Your task to perform on an android device: toggle wifi Image 0: 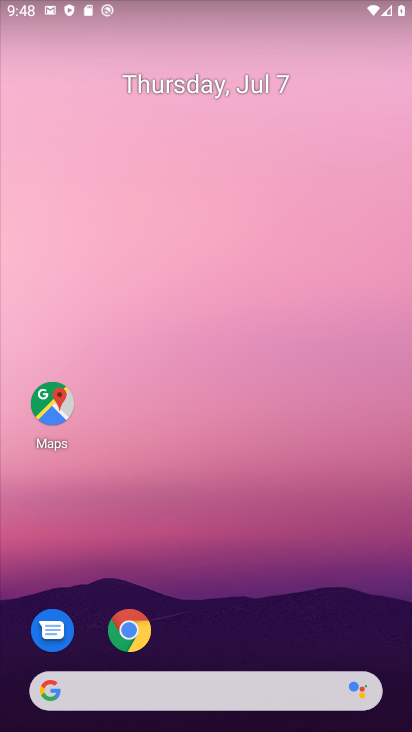
Step 0: drag from (193, 655) to (329, 71)
Your task to perform on an android device: toggle wifi Image 1: 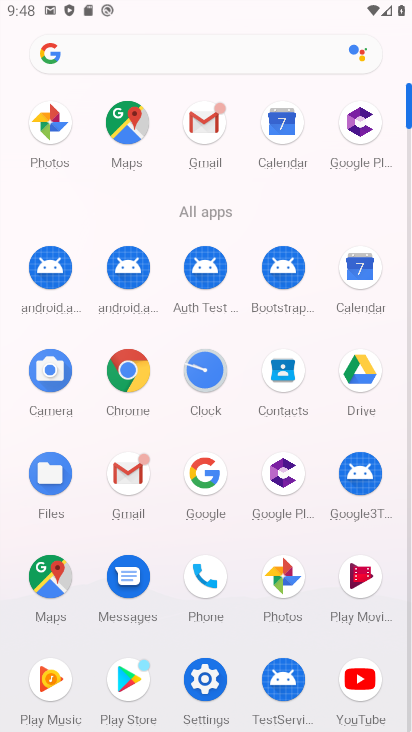
Step 1: click (205, 676)
Your task to perform on an android device: toggle wifi Image 2: 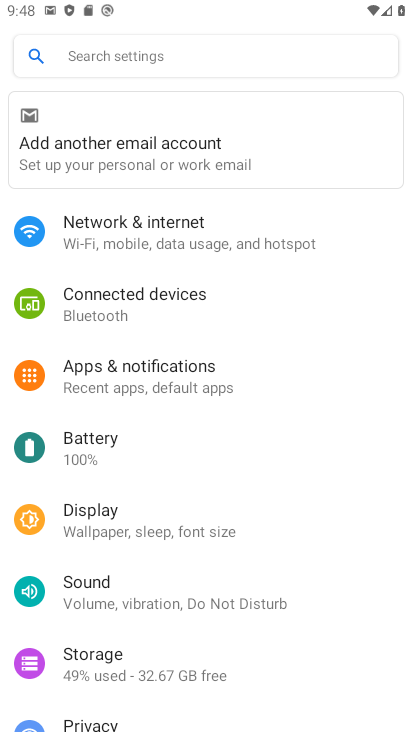
Step 2: drag from (230, 670) to (295, 201)
Your task to perform on an android device: toggle wifi Image 3: 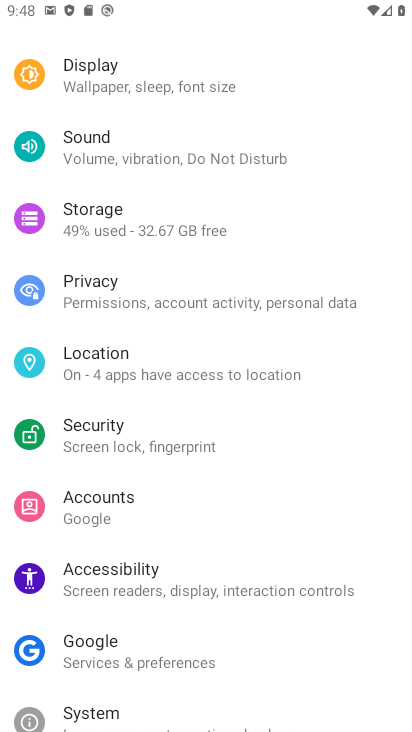
Step 3: drag from (273, 91) to (232, 691)
Your task to perform on an android device: toggle wifi Image 4: 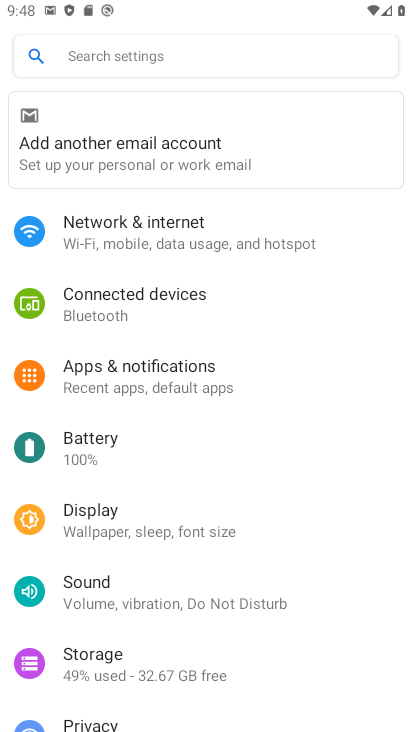
Step 4: click (191, 228)
Your task to perform on an android device: toggle wifi Image 5: 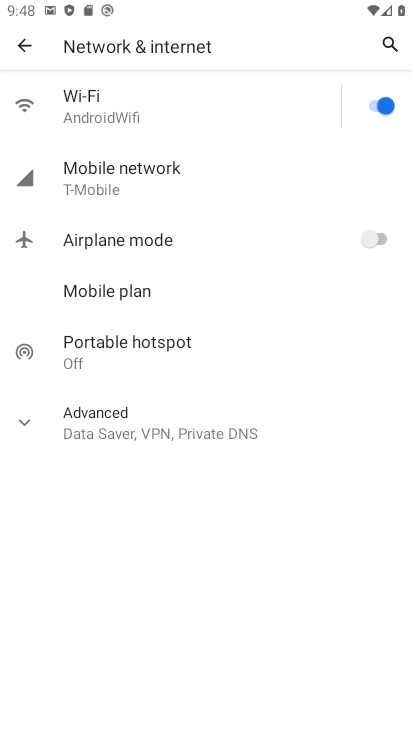
Step 5: click (118, 107)
Your task to perform on an android device: toggle wifi Image 6: 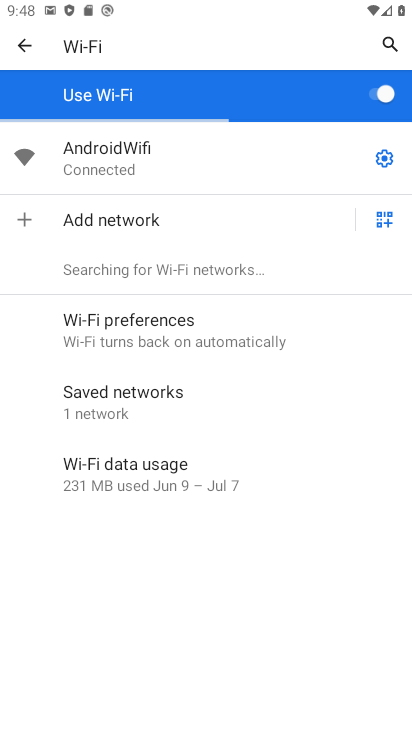
Step 6: click (391, 85)
Your task to perform on an android device: toggle wifi Image 7: 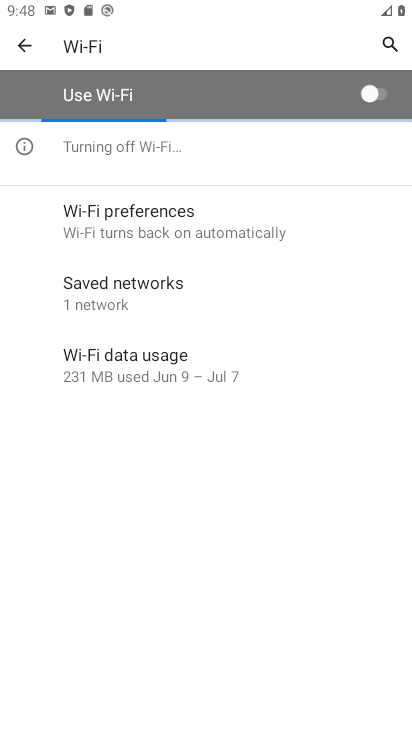
Step 7: task complete